Your task to perform on an android device: Search for Italian restaurants on Maps Image 0: 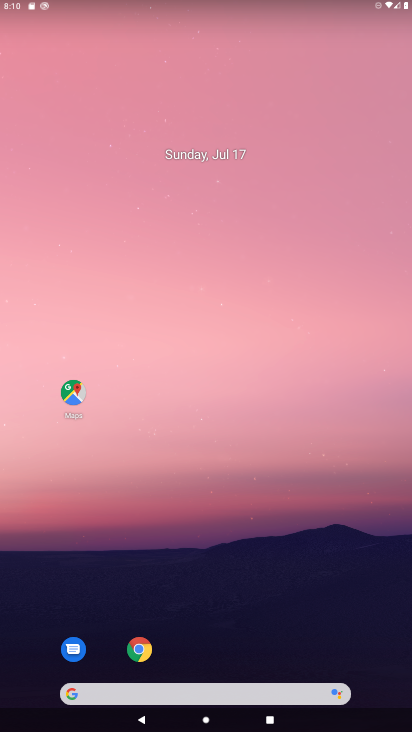
Step 0: drag from (209, 672) to (173, 95)
Your task to perform on an android device: Search for Italian restaurants on Maps Image 1: 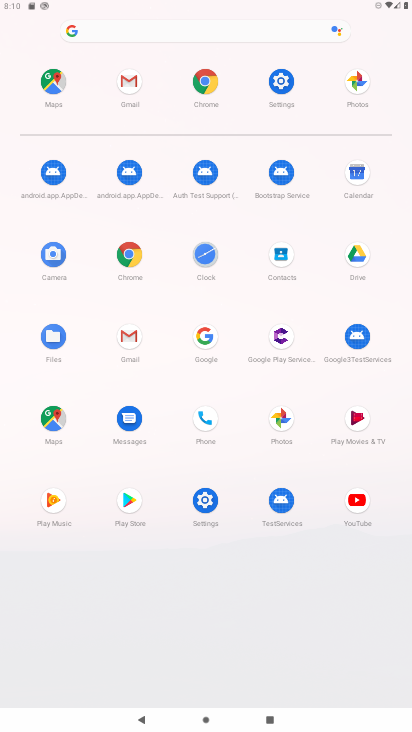
Step 1: click (58, 410)
Your task to perform on an android device: Search for Italian restaurants on Maps Image 2: 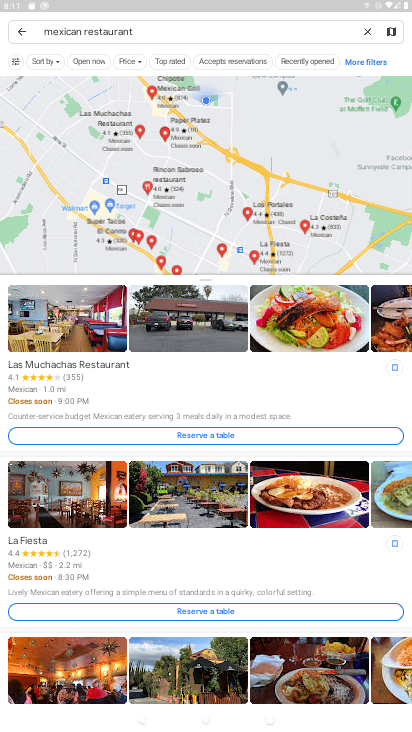
Step 2: click (365, 30)
Your task to perform on an android device: Search for Italian restaurants on Maps Image 3: 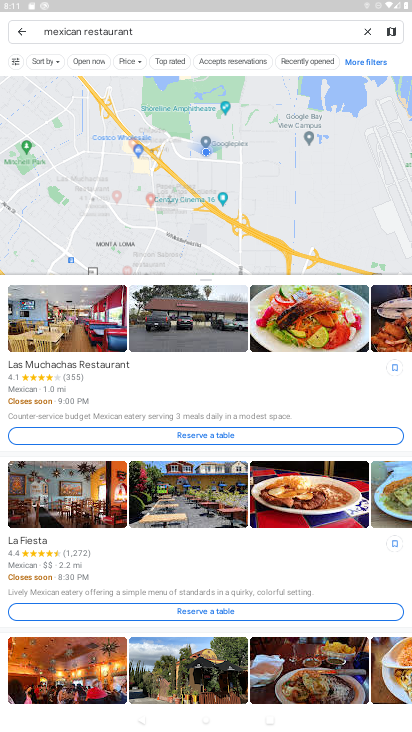
Step 3: click (194, 26)
Your task to perform on an android device: Search for Italian restaurants on Maps Image 4: 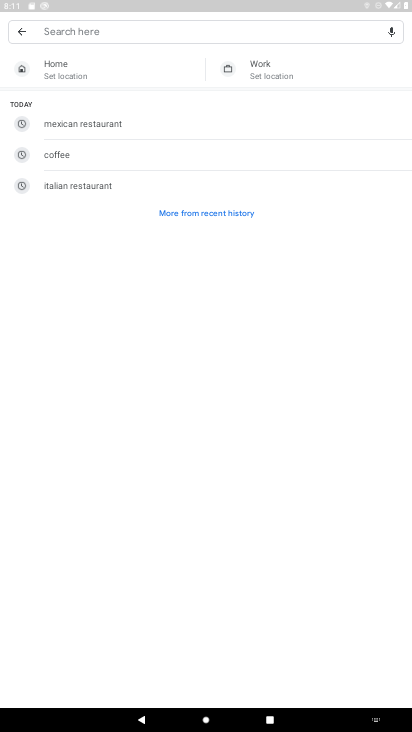
Step 4: type "Italian restaurants"
Your task to perform on an android device: Search for Italian restaurants on Maps Image 5: 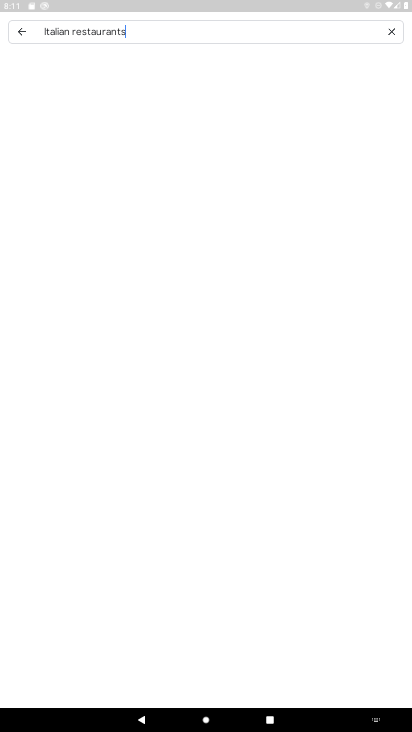
Step 5: type ""
Your task to perform on an android device: Search for Italian restaurants on Maps Image 6: 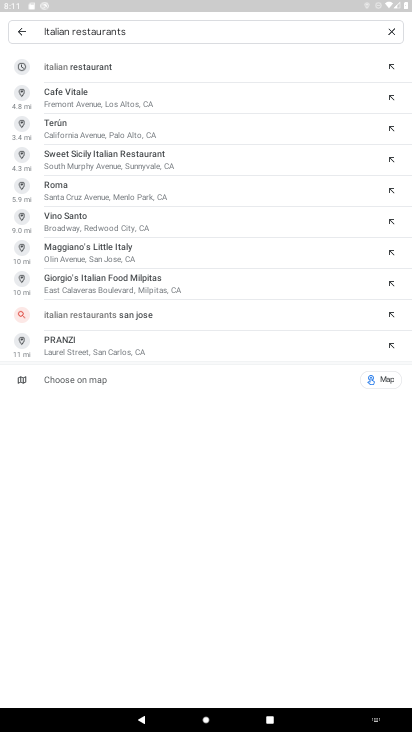
Step 6: click (49, 73)
Your task to perform on an android device: Search for Italian restaurants on Maps Image 7: 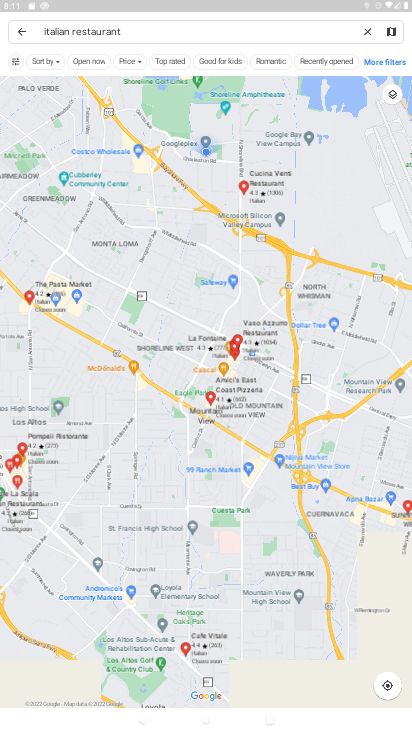
Step 7: task complete